Your task to perform on an android device: toggle wifi Image 0: 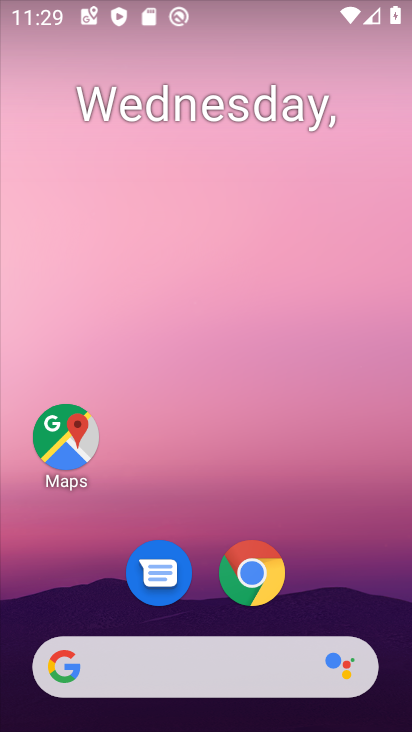
Step 0: drag from (196, 650) to (196, 133)
Your task to perform on an android device: toggle wifi Image 1: 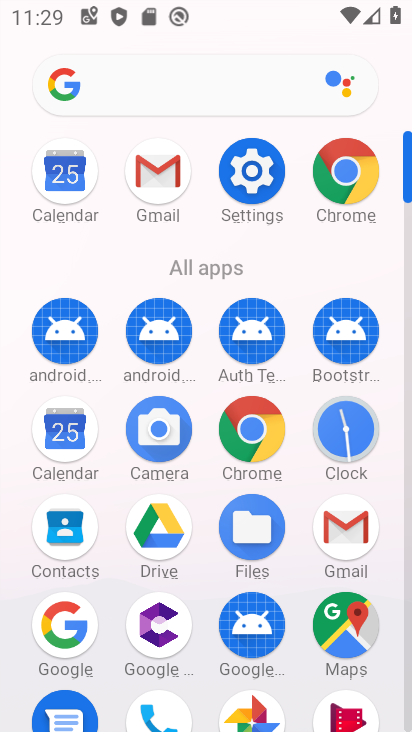
Step 1: click (261, 165)
Your task to perform on an android device: toggle wifi Image 2: 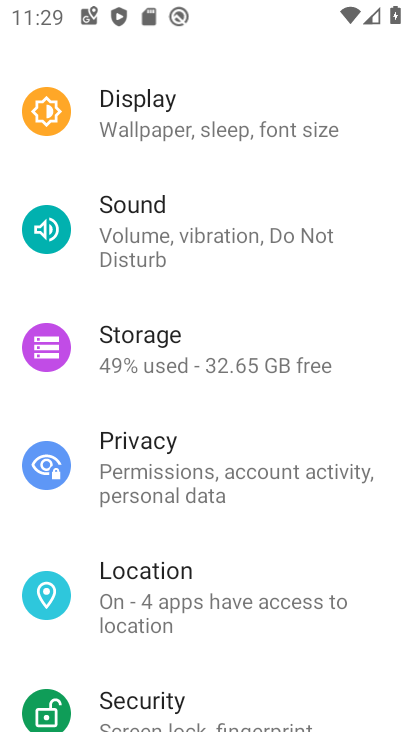
Step 2: drag from (222, 102) to (221, 525)
Your task to perform on an android device: toggle wifi Image 3: 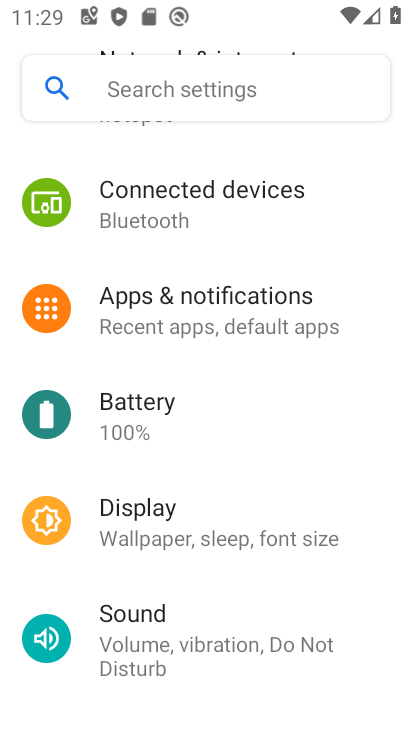
Step 3: drag from (220, 161) to (243, 618)
Your task to perform on an android device: toggle wifi Image 4: 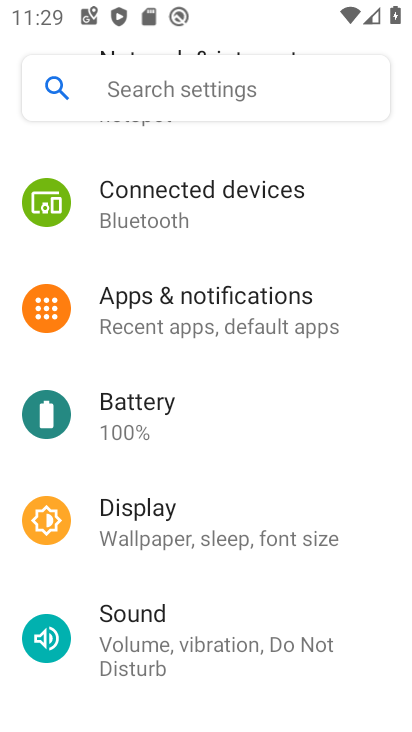
Step 4: drag from (172, 155) to (197, 574)
Your task to perform on an android device: toggle wifi Image 5: 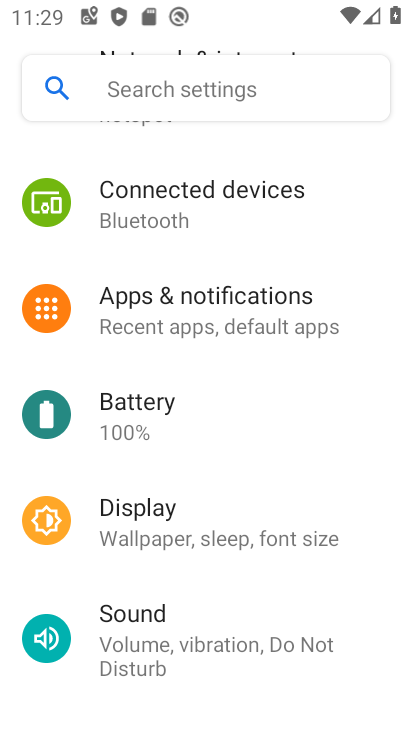
Step 5: drag from (168, 169) to (186, 621)
Your task to perform on an android device: toggle wifi Image 6: 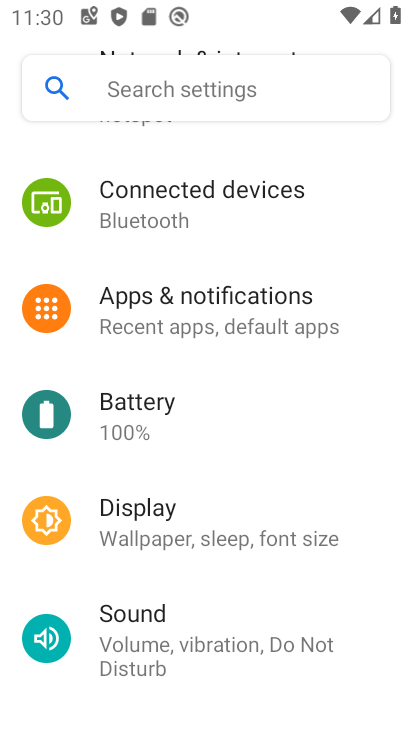
Step 6: drag from (287, 167) to (247, 615)
Your task to perform on an android device: toggle wifi Image 7: 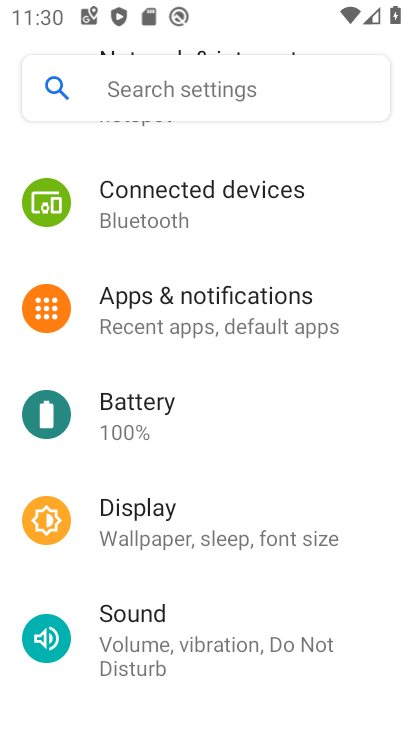
Step 7: drag from (143, 146) to (203, 638)
Your task to perform on an android device: toggle wifi Image 8: 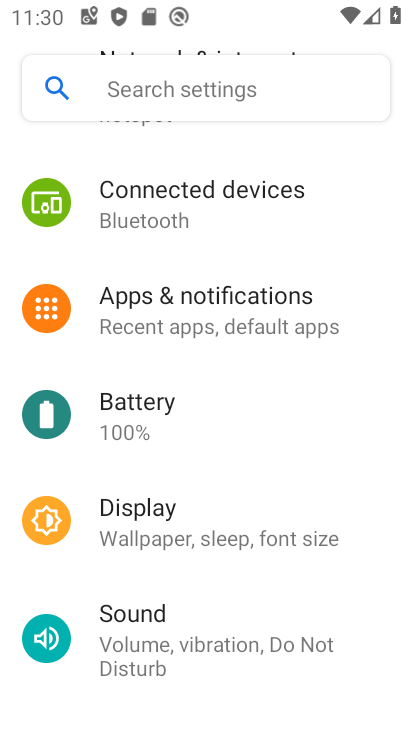
Step 8: click (174, 127)
Your task to perform on an android device: toggle wifi Image 9: 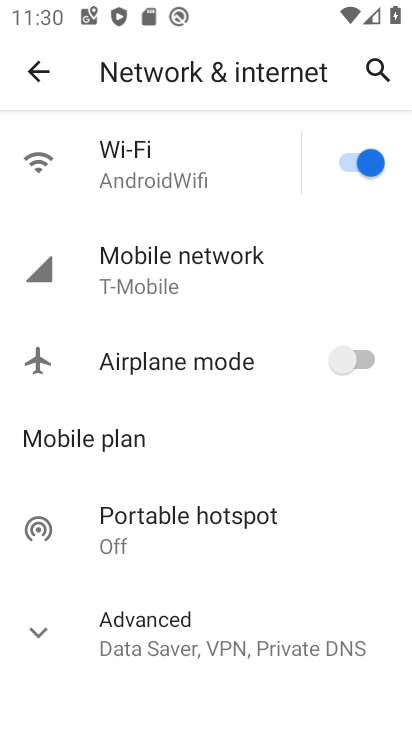
Step 9: click (344, 164)
Your task to perform on an android device: toggle wifi Image 10: 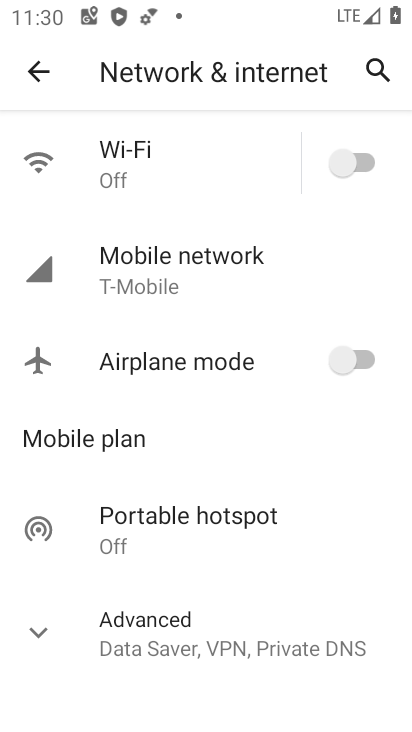
Step 10: task complete